Your task to perform on an android device: change the clock display to show seconds Image 0: 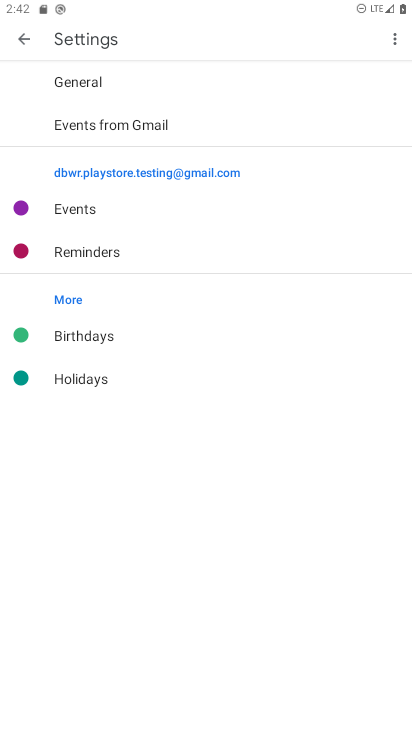
Step 0: drag from (195, 568) to (204, 339)
Your task to perform on an android device: change the clock display to show seconds Image 1: 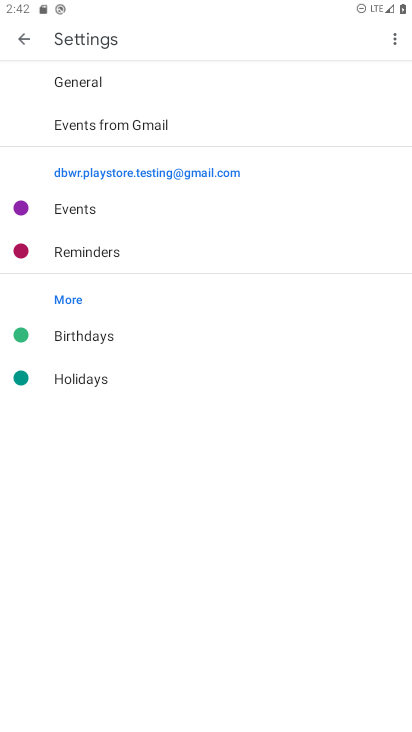
Step 1: press home button
Your task to perform on an android device: change the clock display to show seconds Image 2: 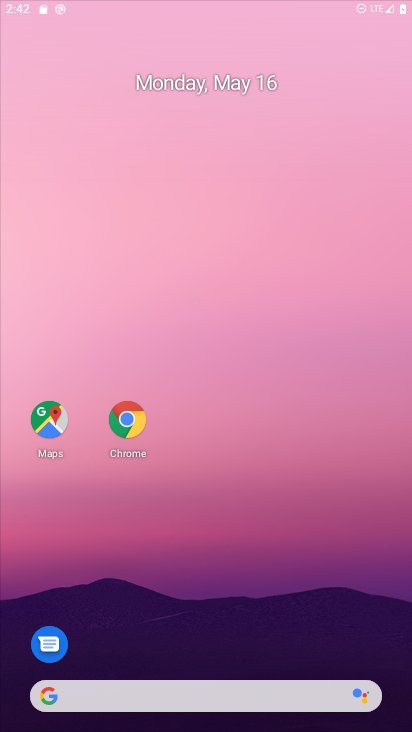
Step 2: drag from (211, 578) to (113, 20)
Your task to perform on an android device: change the clock display to show seconds Image 3: 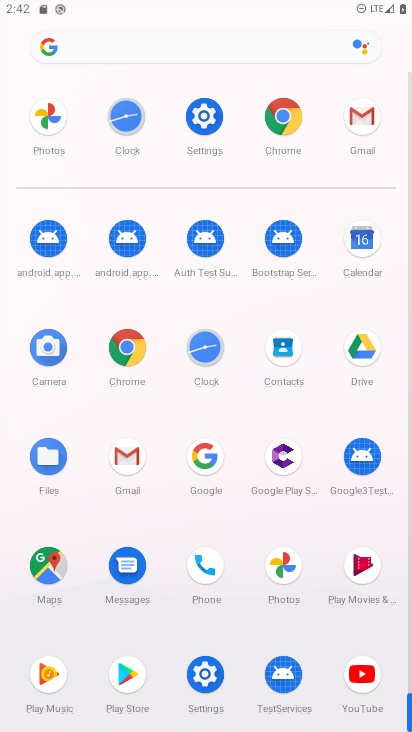
Step 3: click (192, 360)
Your task to perform on an android device: change the clock display to show seconds Image 4: 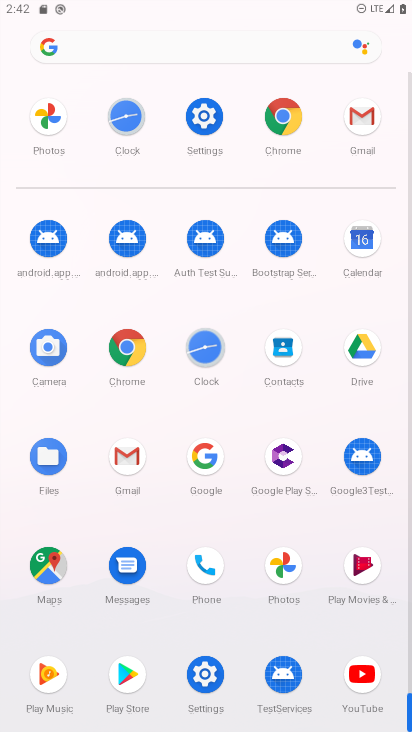
Step 4: click (192, 360)
Your task to perform on an android device: change the clock display to show seconds Image 5: 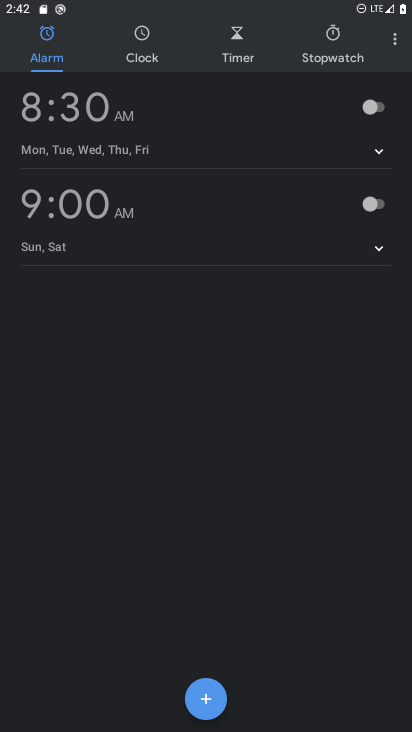
Step 5: click (389, 37)
Your task to perform on an android device: change the clock display to show seconds Image 6: 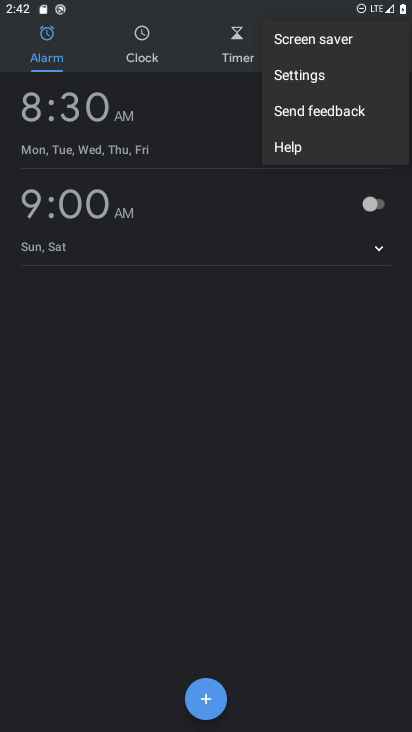
Step 6: click (281, 78)
Your task to perform on an android device: change the clock display to show seconds Image 7: 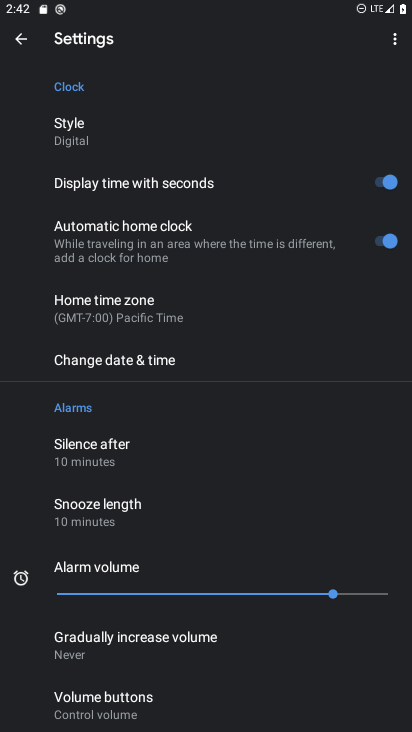
Step 7: drag from (253, 568) to (231, 219)
Your task to perform on an android device: change the clock display to show seconds Image 8: 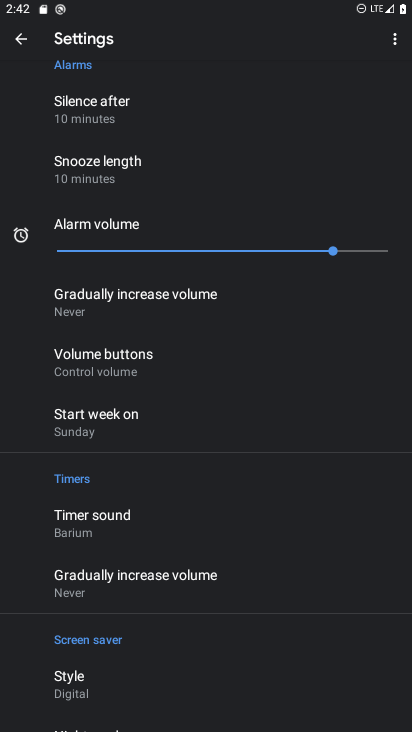
Step 8: drag from (188, 203) to (396, 615)
Your task to perform on an android device: change the clock display to show seconds Image 9: 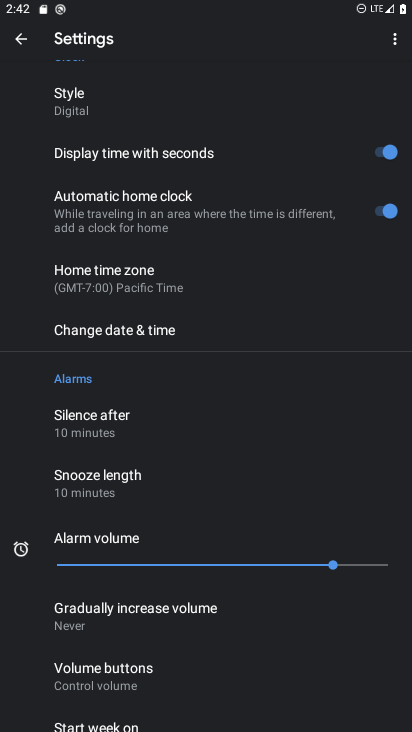
Step 9: click (374, 149)
Your task to perform on an android device: change the clock display to show seconds Image 10: 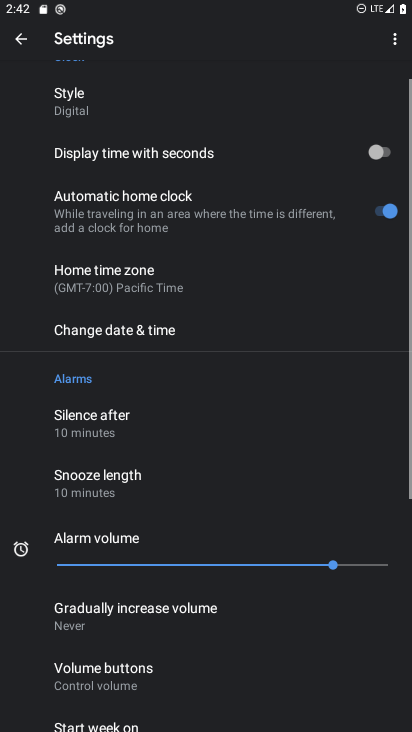
Step 10: task complete